Your task to perform on an android device: Open the calculator Image 0: 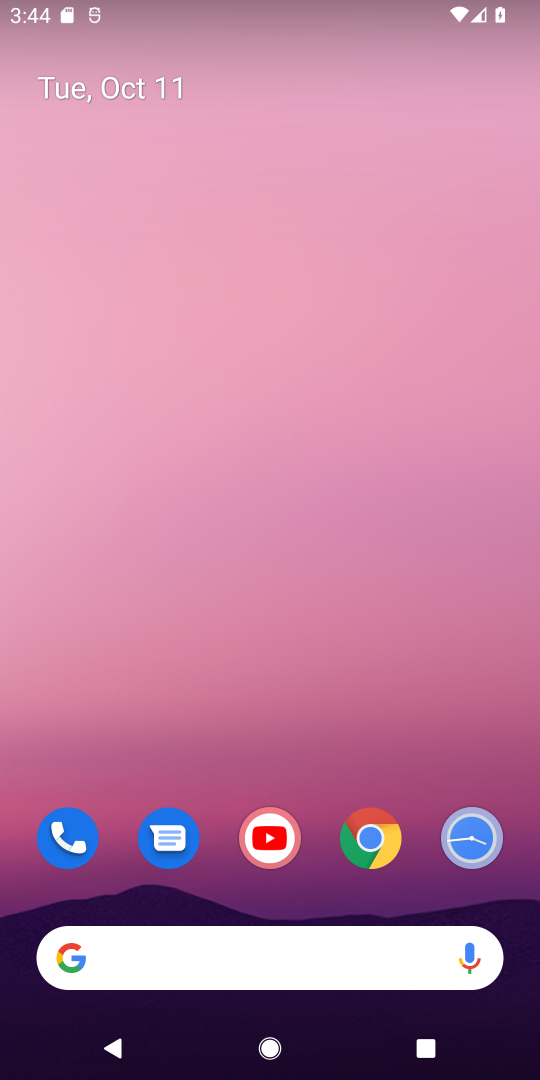
Step 0: drag from (277, 766) to (258, 148)
Your task to perform on an android device: Open the calculator Image 1: 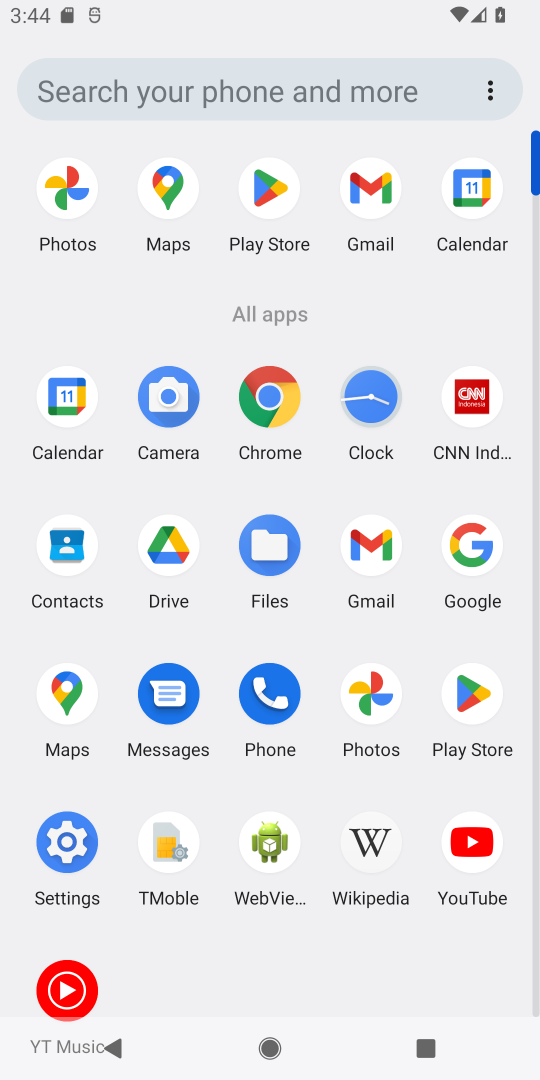
Step 1: click (180, 81)
Your task to perform on an android device: Open the calculator Image 2: 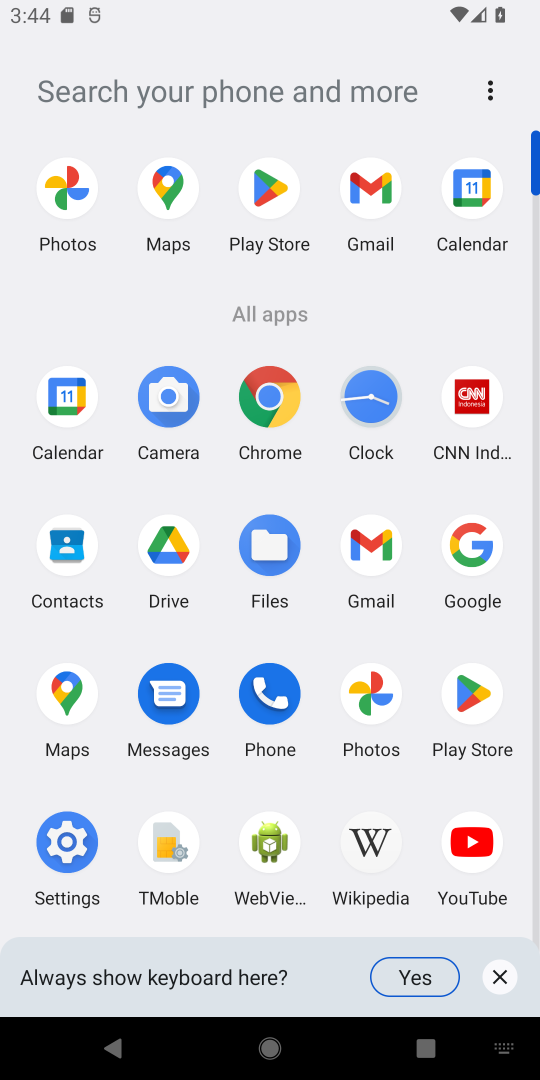
Step 2: type "calculator"
Your task to perform on an android device: Open the calculator Image 3: 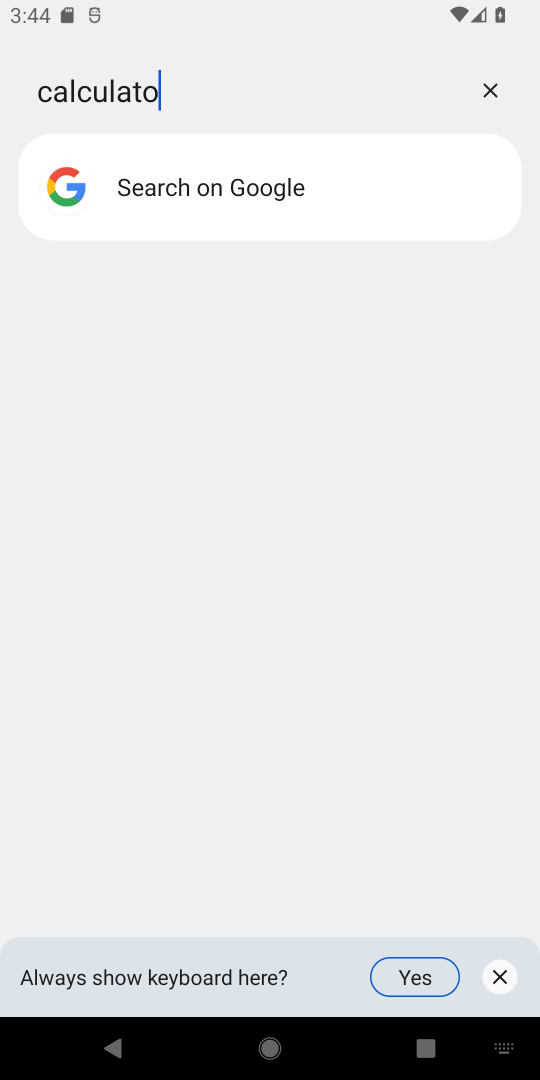
Step 3: type ""
Your task to perform on an android device: Open the calculator Image 4: 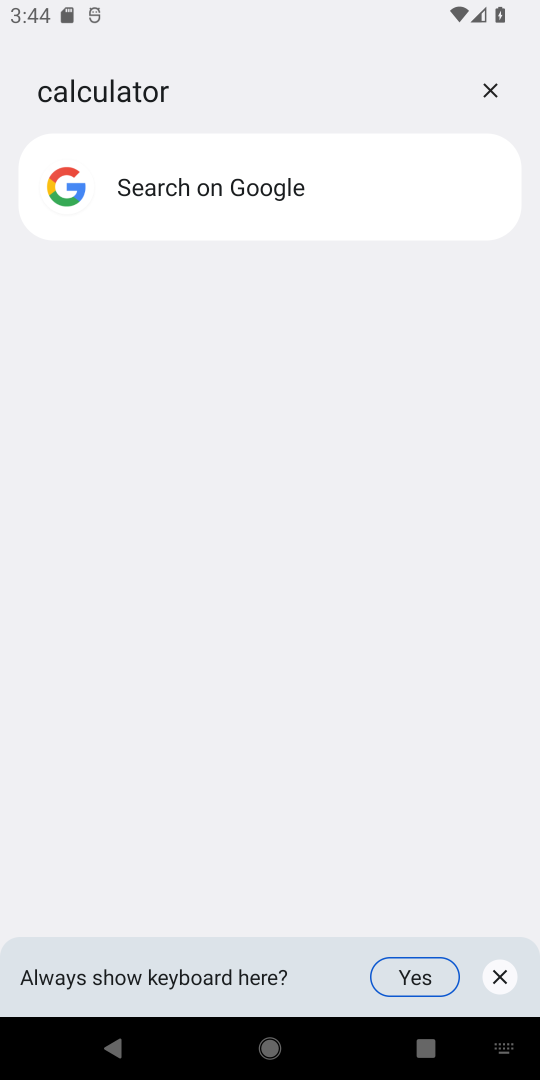
Step 4: click (485, 83)
Your task to perform on an android device: Open the calculator Image 5: 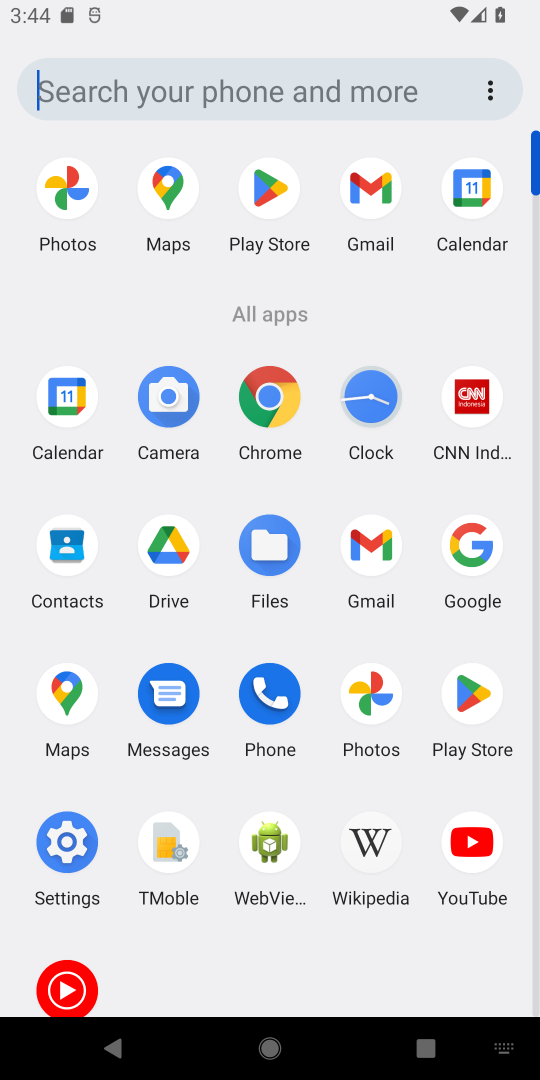
Step 5: task complete